Your task to perform on an android device: Open CNN.com Image 0: 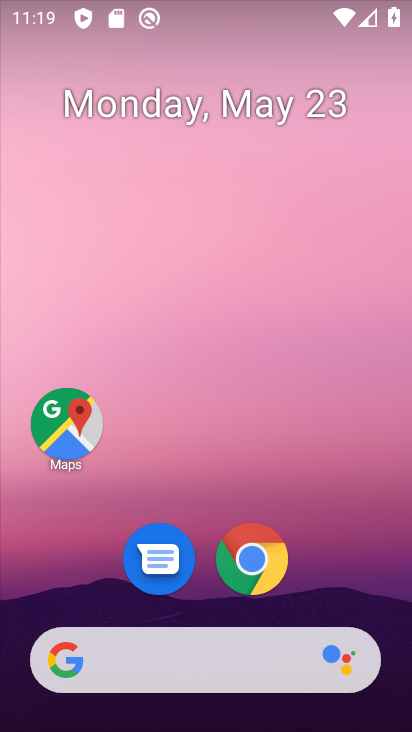
Step 0: click (266, 558)
Your task to perform on an android device: Open CNN.com Image 1: 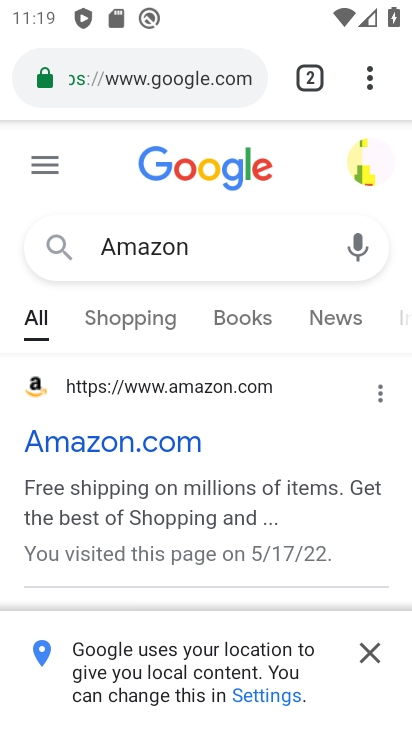
Step 1: click (247, 70)
Your task to perform on an android device: Open CNN.com Image 2: 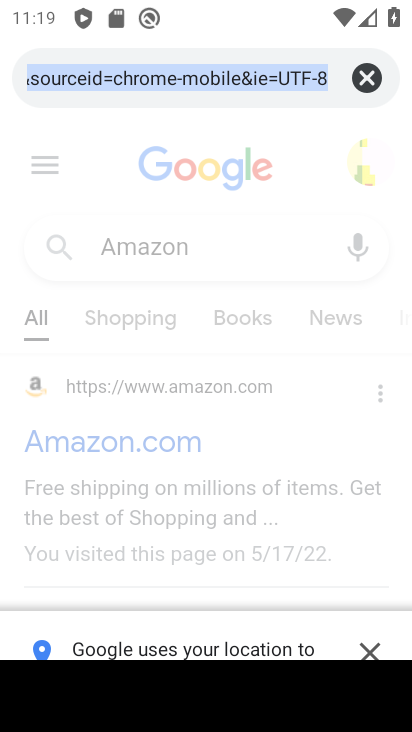
Step 2: click (356, 77)
Your task to perform on an android device: Open CNN.com Image 3: 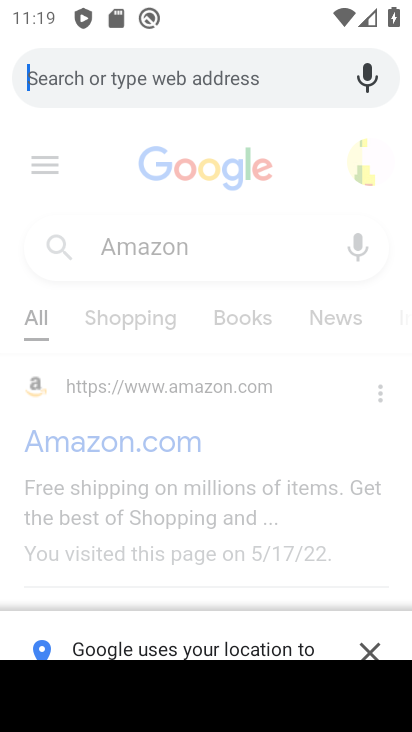
Step 3: type "CNN.com"
Your task to perform on an android device: Open CNN.com Image 4: 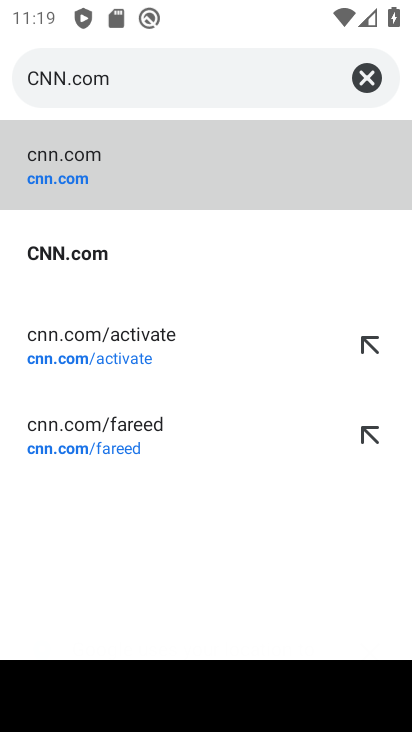
Step 4: click (244, 75)
Your task to perform on an android device: Open CNN.com Image 5: 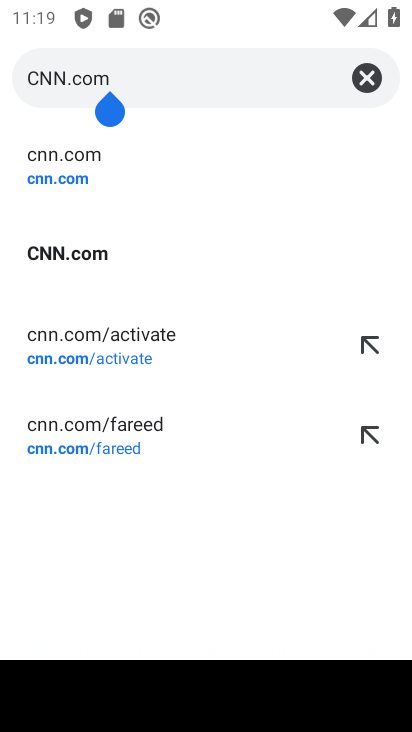
Step 5: click (70, 251)
Your task to perform on an android device: Open CNN.com Image 6: 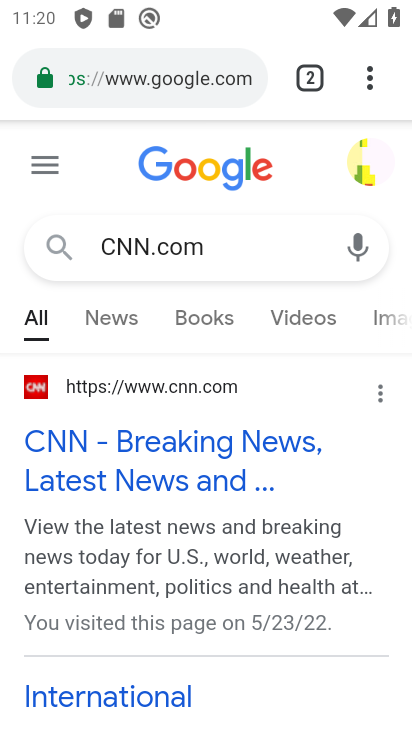
Step 6: task complete